Your task to perform on an android device: Open settings Image 0: 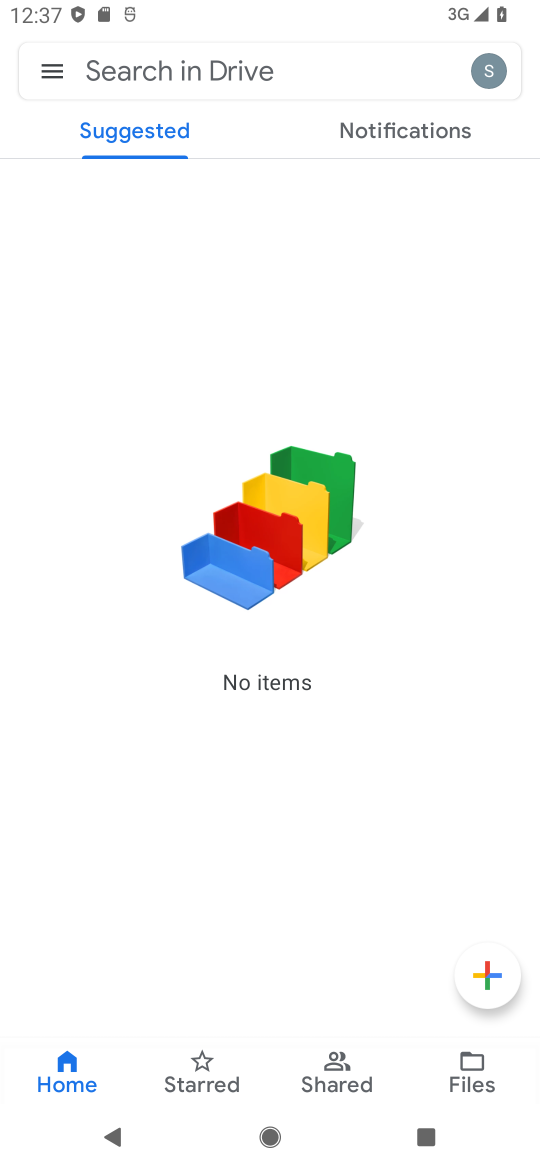
Step 0: drag from (330, 19) to (357, 613)
Your task to perform on an android device: Open settings Image 1: 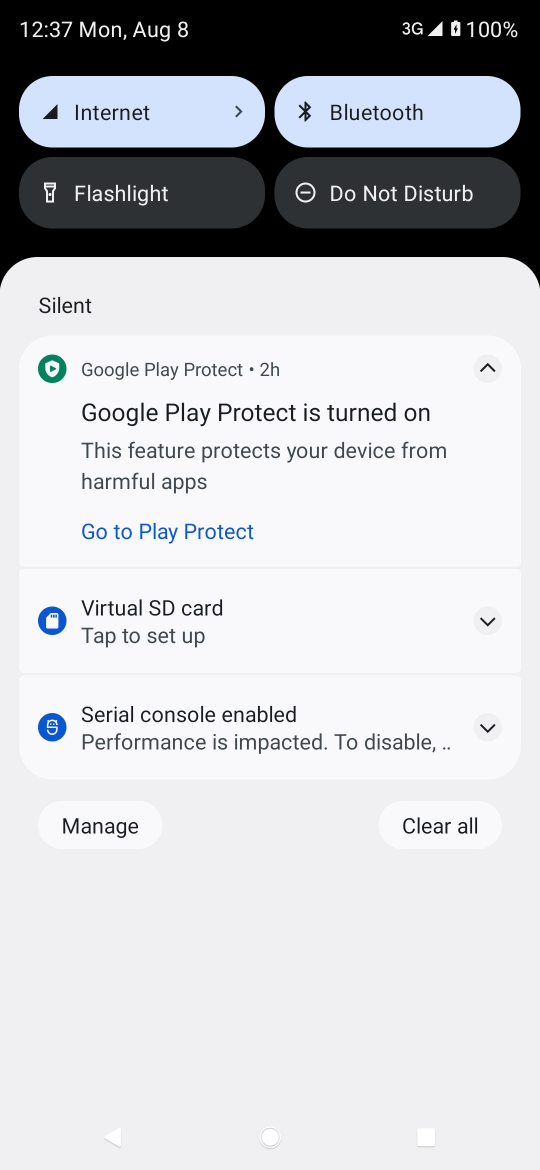
Step 1: drag from (252, 54) to (266, 422)
Your task to perform on an android device: Open settings Image 2: 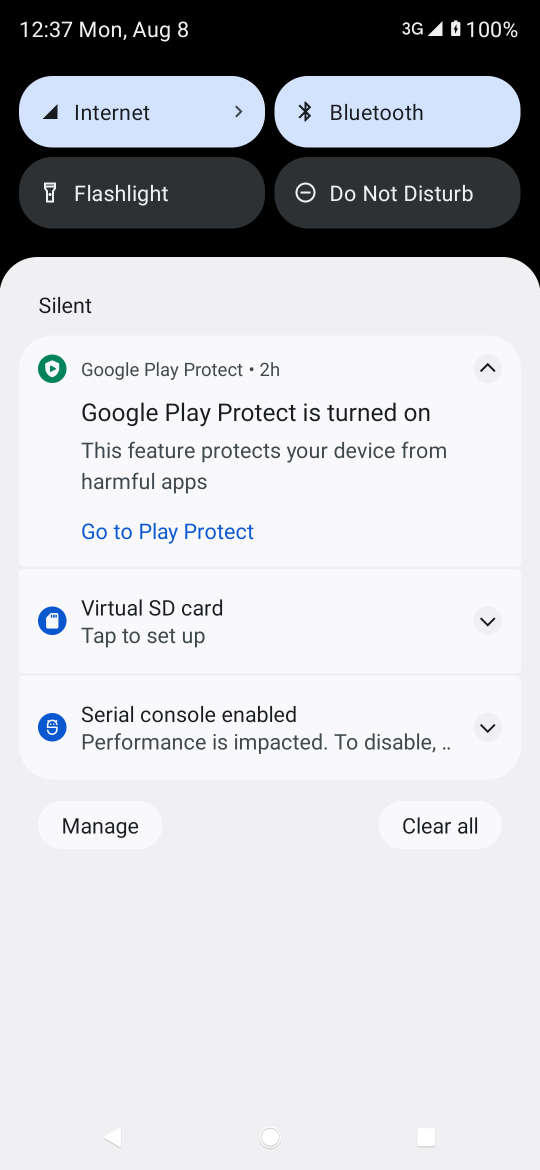
Step 2: click (202, 128)
Your task to perform on an android device: Open settings Image 3: 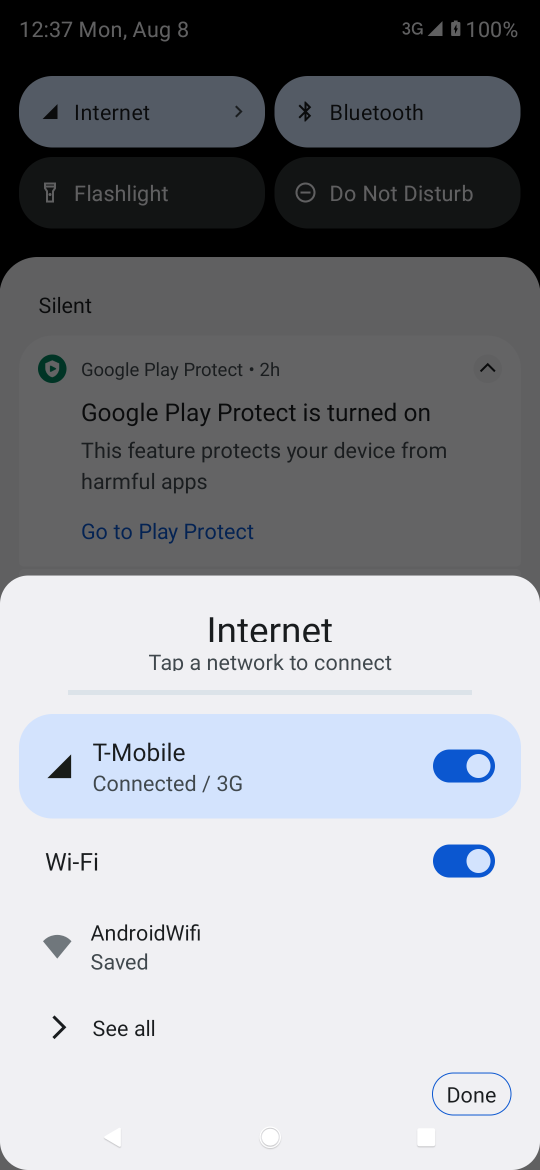
Step 3: press home button
Your task to perform on an android device: Open settings Image 4: 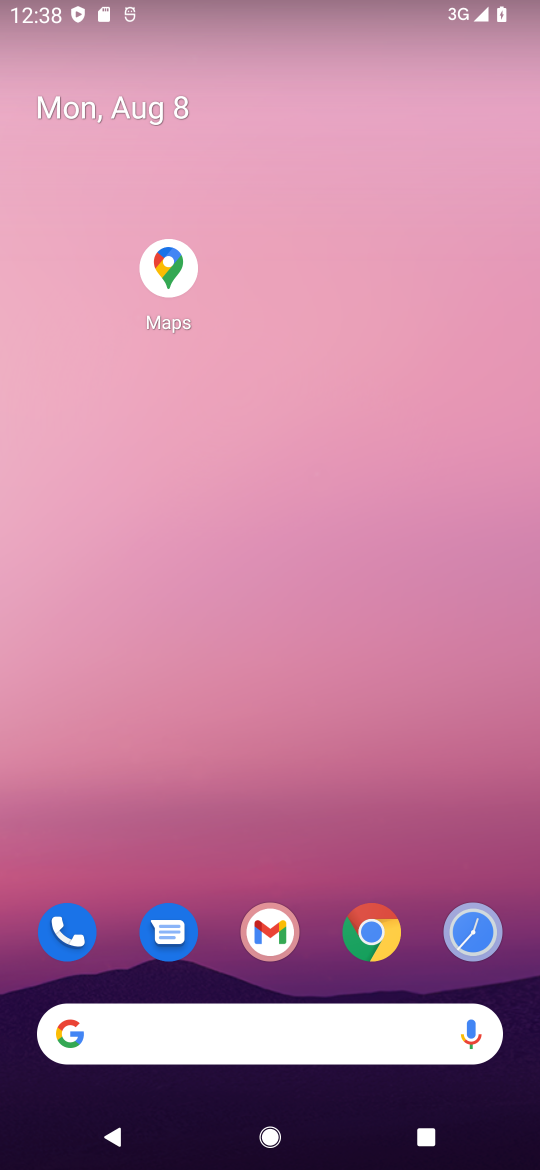
Step 4: drag from (221, 840) to (286, 222)
Your task to perform on an android device: Open settings Image 5: 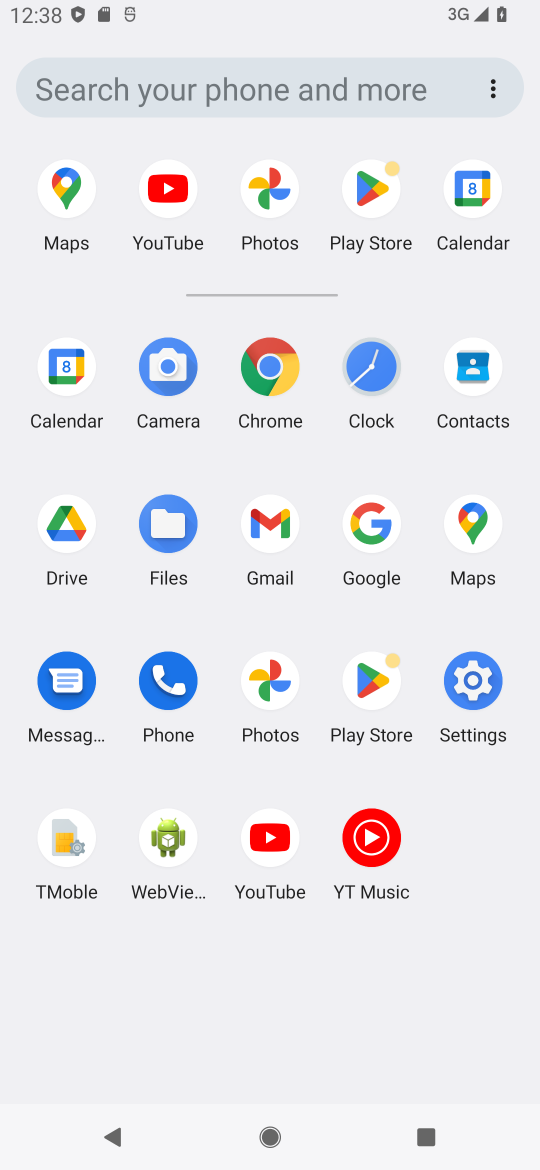
Step 5: click (466, 716)
Your task to perform on an android device: Open settings Image 6: 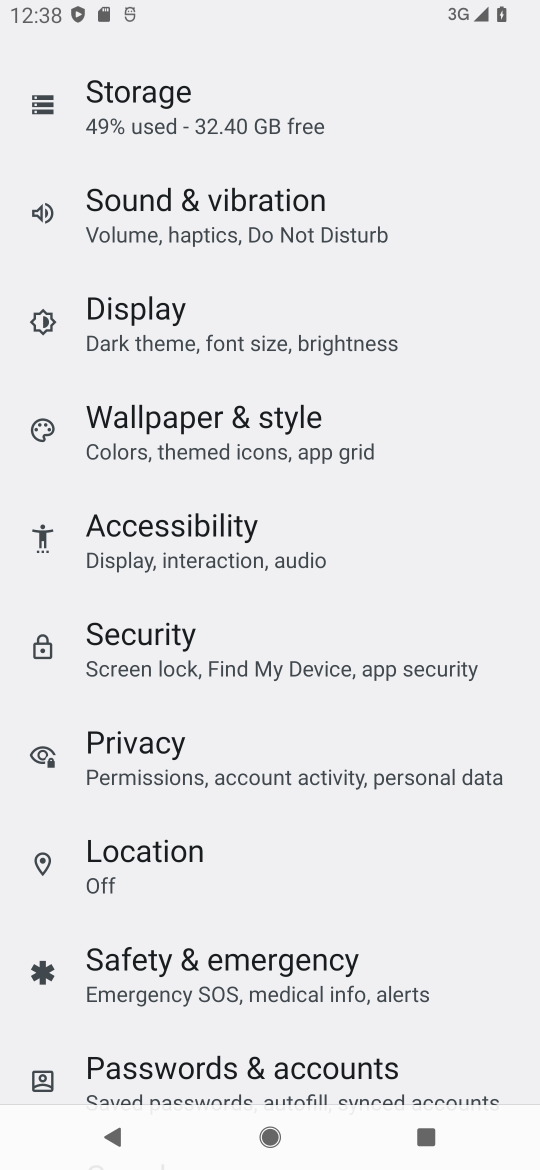
Step 6: task complete